Your task to perform on an android device: open app "Gmail" Image 0: 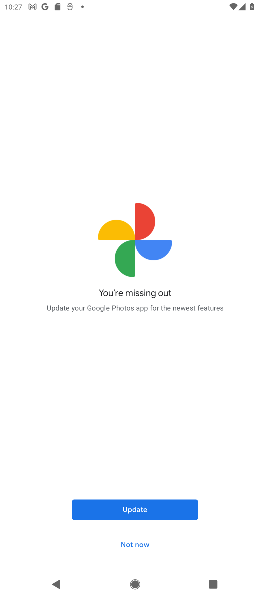
Step 0: press home button
Your task to perform on an android device: open app "Gmail" Image 1: 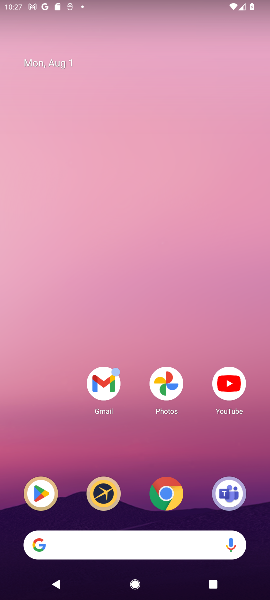
Step 1: click (115, 390)
Your task to perform on an android device: open app "Gmail" Image 2: 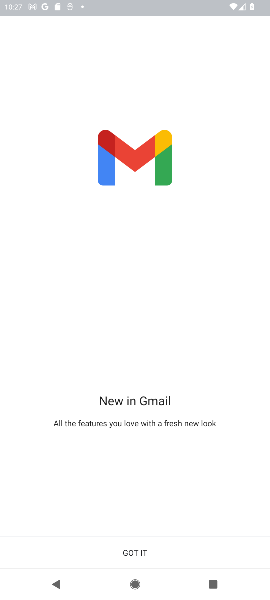
Step 2: task complete